Your task to perform on an android device: Go to display settings Image 0: 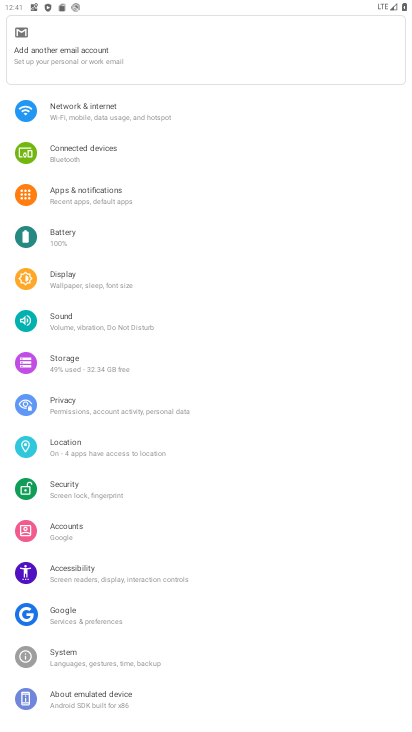
Step 0: click (72, 277)
Your task to perform on an android device: Go to display settings Image 1: 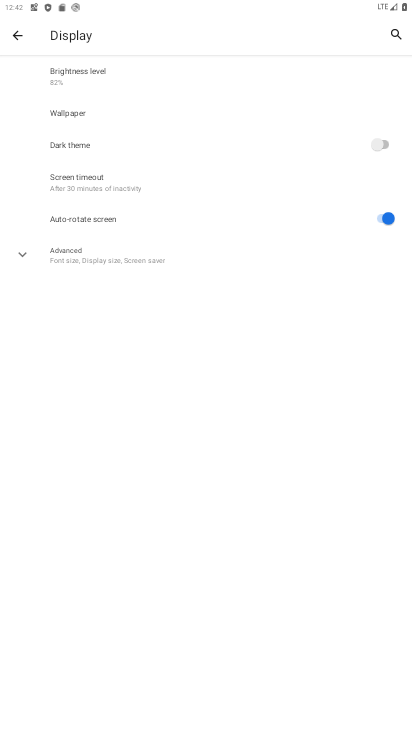
Step 1: task complete